Your task to perform on an android device: change timer sound Image 0: 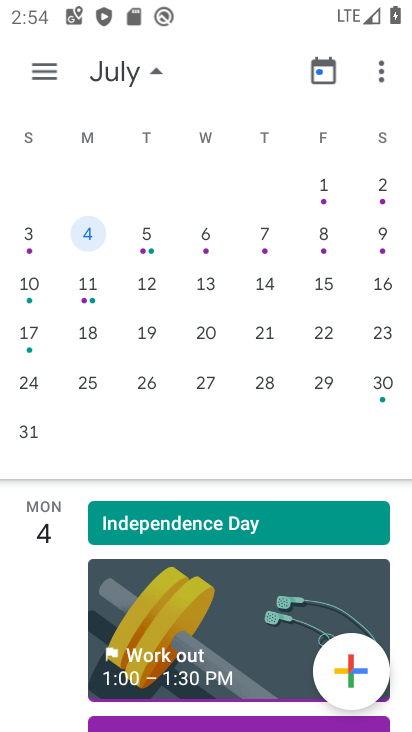
Step 0: press enter
Your task to perform on an android device: change timer sound Image 1: 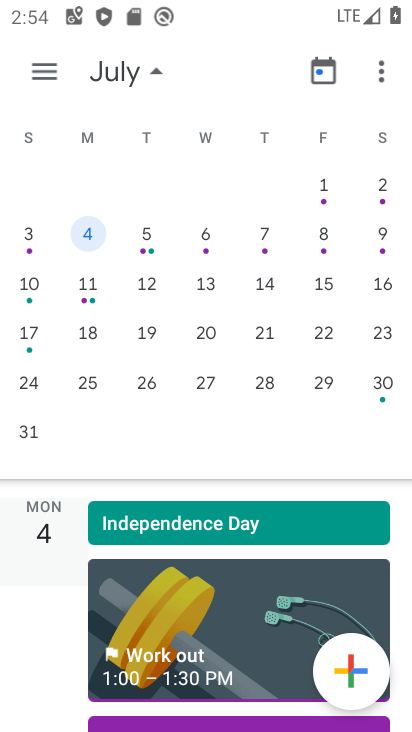
Step 1: press home button
Your task to perform on an android device: change timer sound Image 2: 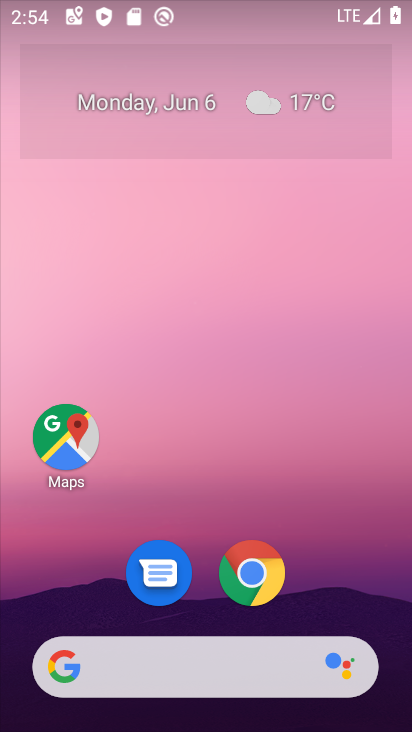
Step 2: drag from (358, 576) to (369, 138)
Your task to perform on an android device: change timer sound Image 3: 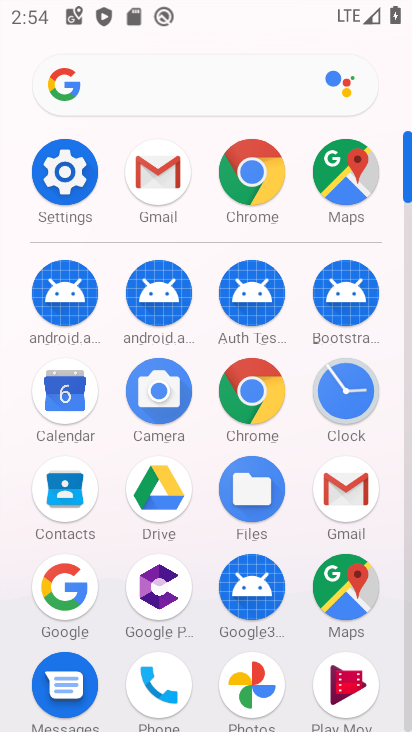
Step 3: click (354, 386)
Your task to perform on an android device: change timer sound Image 4: 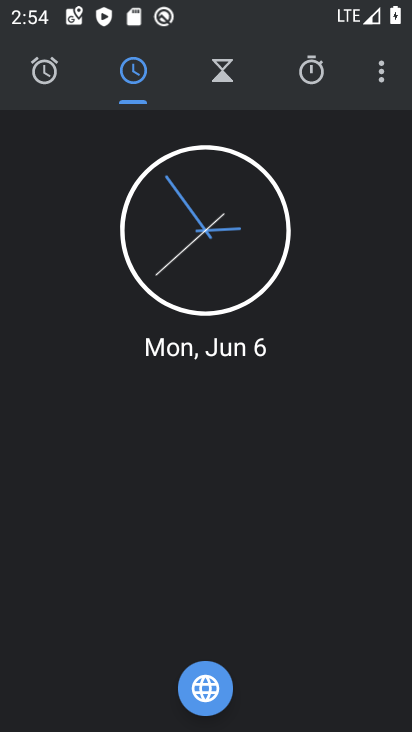
Step 4: click (379, 83)
Your task to perform on an android device: change timer sound Image 5: 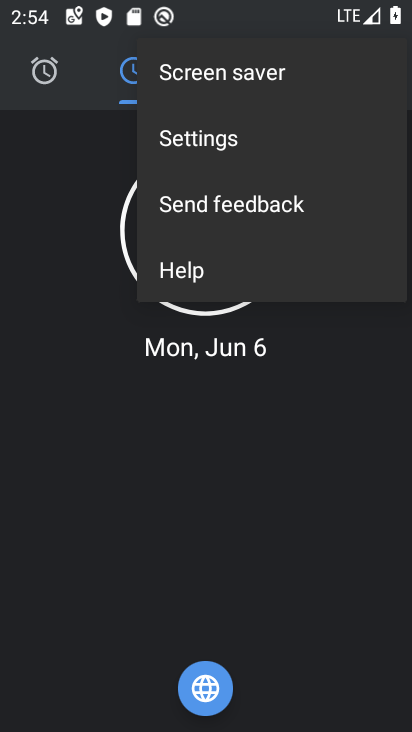
Step 5: click (233, 149)
Your task to perform on an android device: change timer sound Image 6: 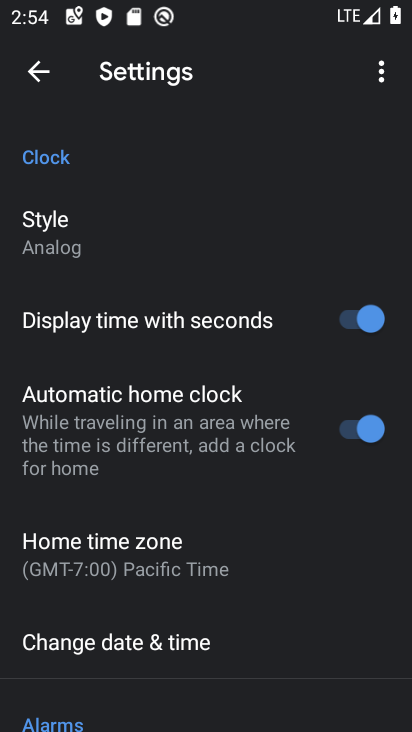
Step 6: drag from (291, 505) to (301, 345)
Your task to perform on an android device: change timer sound Image 7: 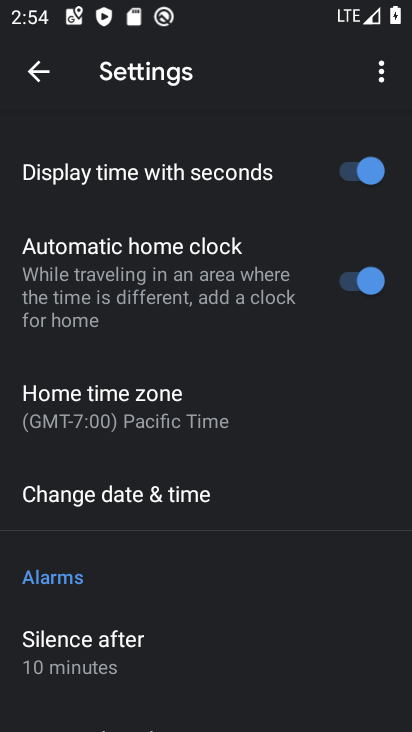
Step 7: drag from (311, 557) to (314, 393)
Your task to perform on an android device: change timer sound Image 8: 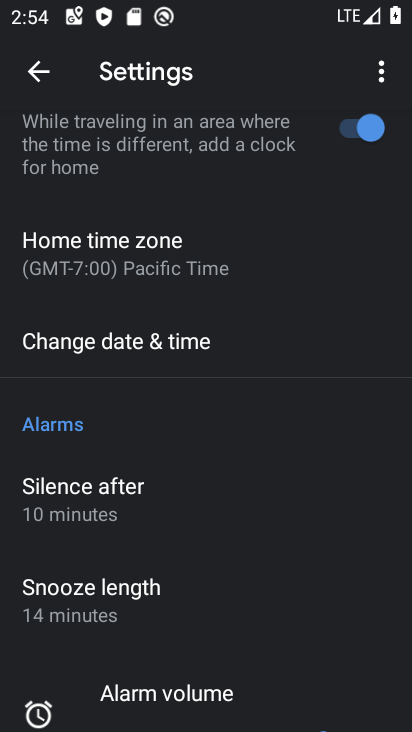
Step 8: drag from (320, 628) to (342, 446)
Your task to perform on an android device: change timer sound Image 9: 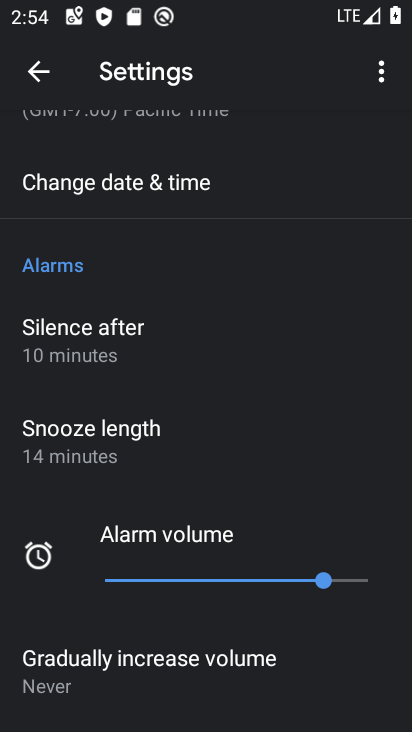
Step 9: drag from (348, 641) to (372, 443)
Your task to perform on an android device: change timer sound Image 10: 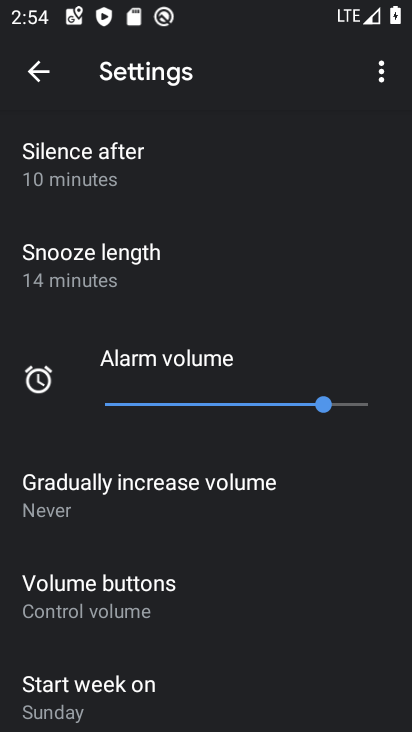
Step 10: drag from (367, 446) to (393, 224)
Your task to perform on an android device: change timer sound Image 11: 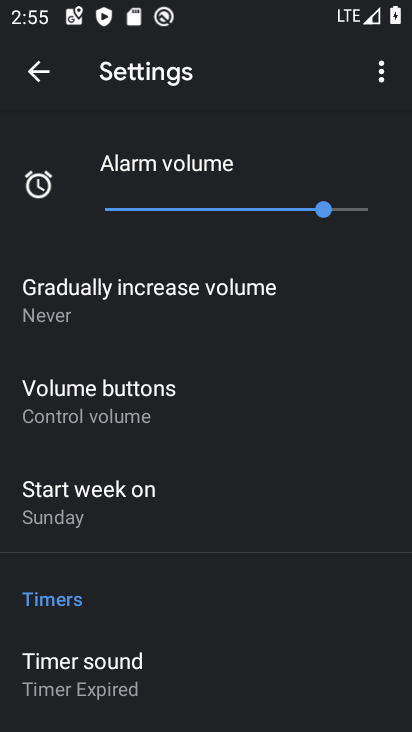
Step 11: drag from (370, 170) to (350, 352)
Your task to perform on an android device: change timer sound Image 12: 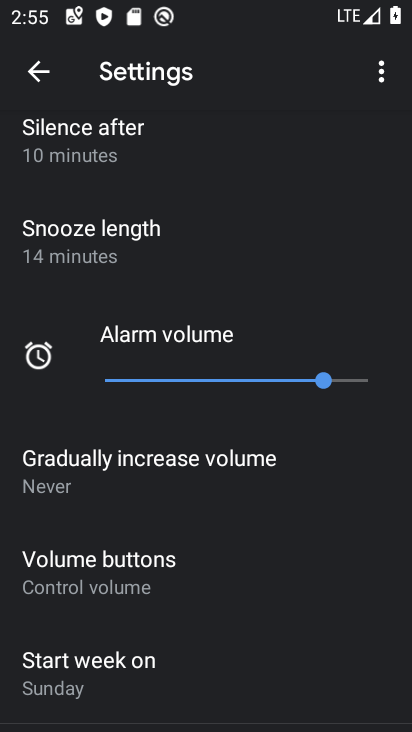
Step 12: drag from (328, 175) to (341, 348)
Your task to perform on an android device: change timer sound Image 13: 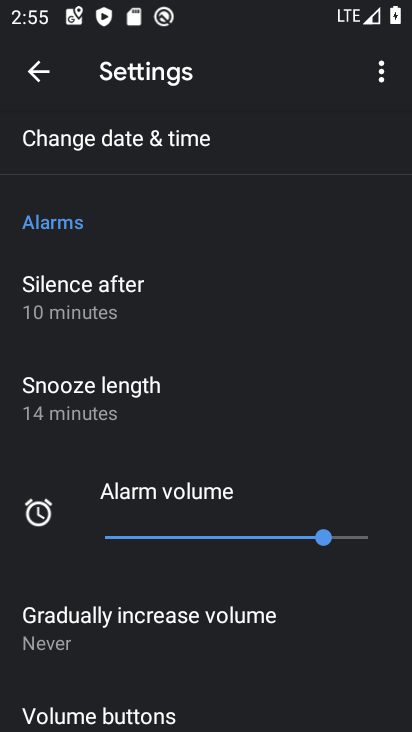
Step 13: drag from (341, 204) to (349, 359)
Your task to perform on an android device: change timer sound Image 14: 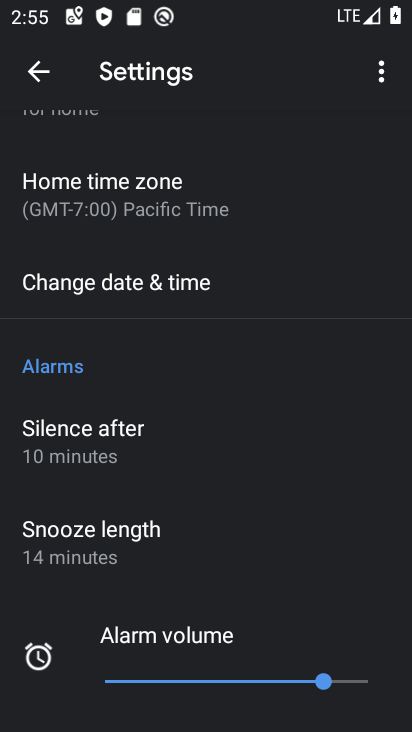
Step 14: drag from (353, 201) to (357, 392)
Your task to perform on an android device: change timer sound Image 15: 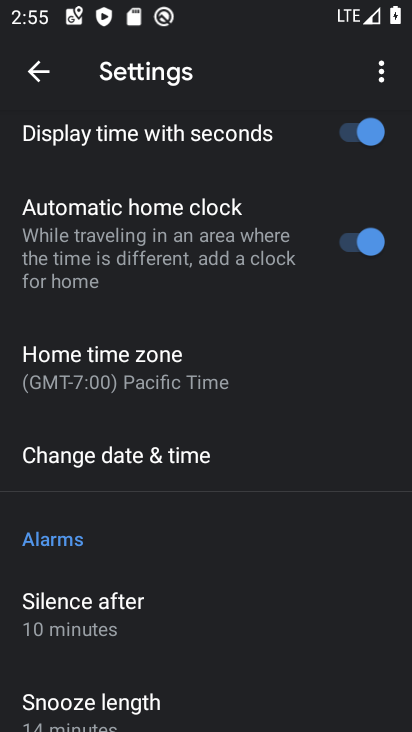
Step 15: drag from (321, 462) to (319, 251)
Your task to perform on an android device: change timer sound Image 16: 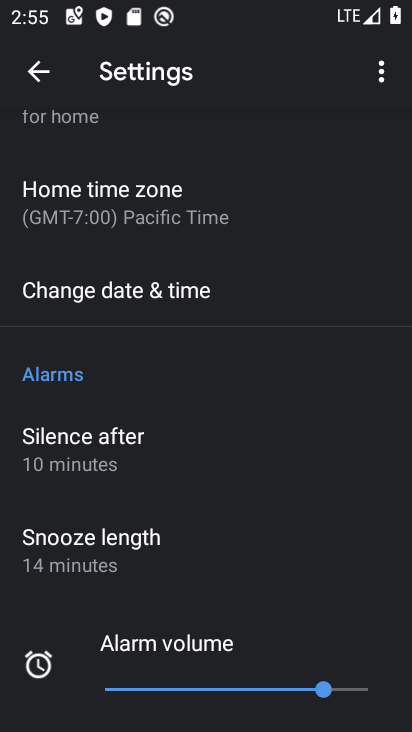
Step 16: drag from (315, 451) to (312, 291)
Your task to perform on an android device: change timer sound Image 17: 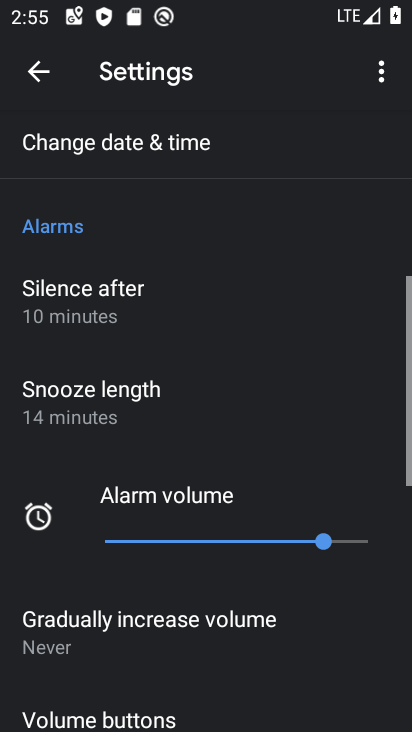
Step 17: drag from (311, 561) to (317, 332)
Your task to perform on an android device: change timer sound Image 18: 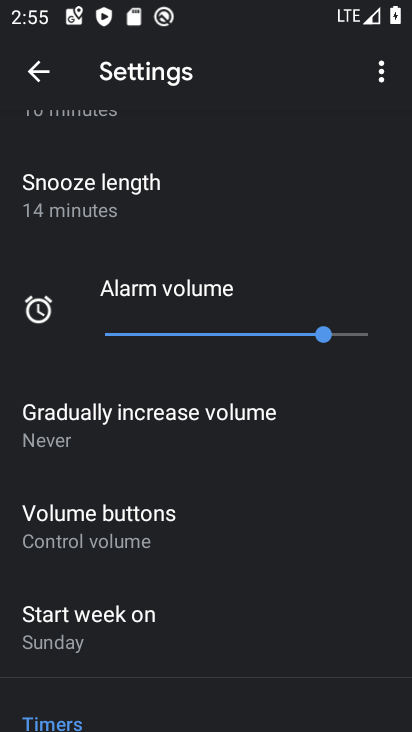
Step 18: drag from (318, 558) to (320, 351)
Your task to perform on an android device: change timer sound Image 19: 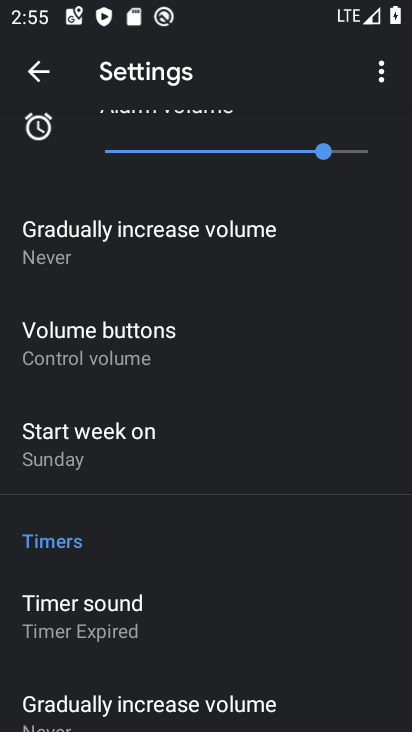
Step 19: click (156, 616)
Your task to perform on an android device: change timer sound Image 20: 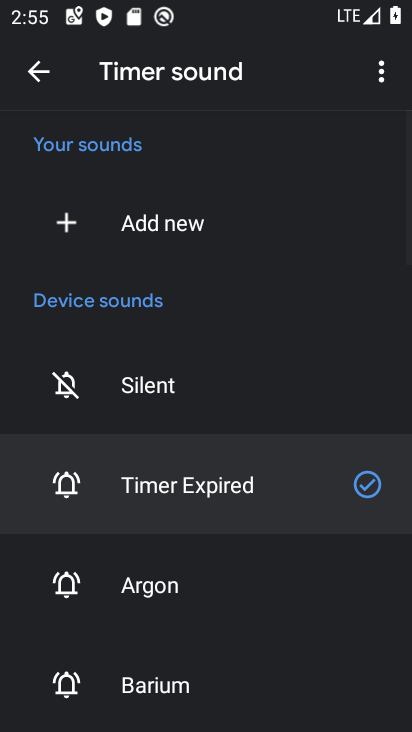
Step 20: click (174, 603)
Your task to perform on an android device: change timer sound Image 21: 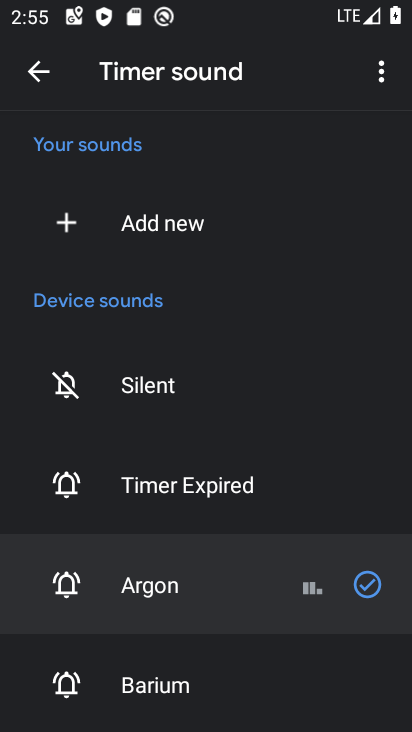
Step 21: task complete